Your task to perform on an android device: Open the web browser Image 0: 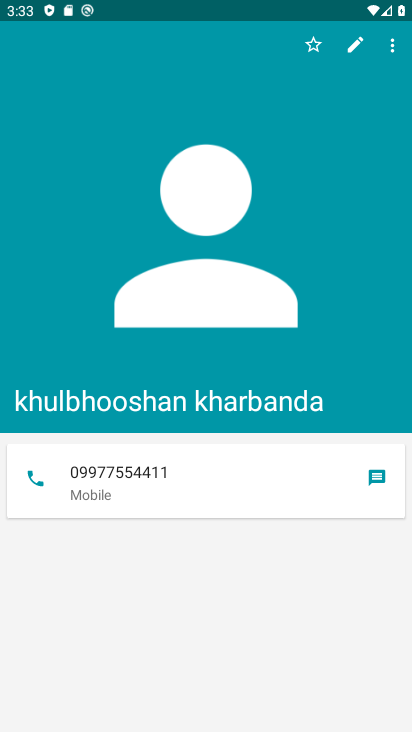
Step 0: press home button
Your task to perform on an android device: Open the web browser Image 1: 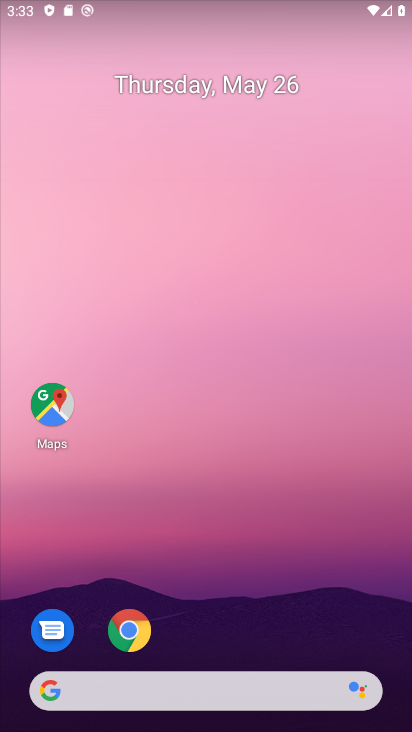
Step 1: click (130, 633)
Your task to perform on an android device: Open the web browser Image 2: 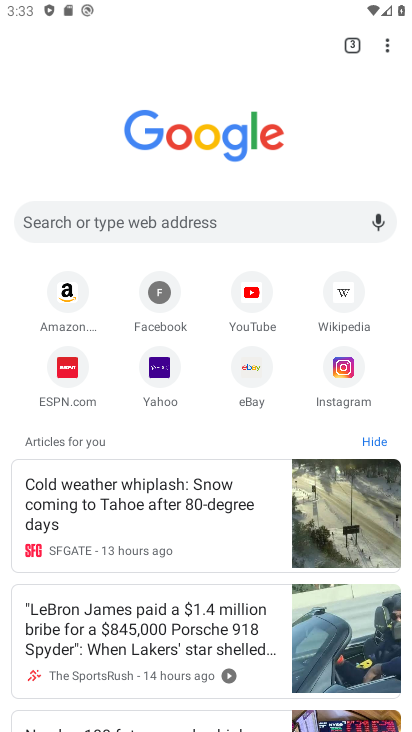
Step 2: task complete